Your task to perform on an android device: Empty the shopping cart on amazon. Add "lg ultragear" to the cart on amazon, then select checkout. Image 0: 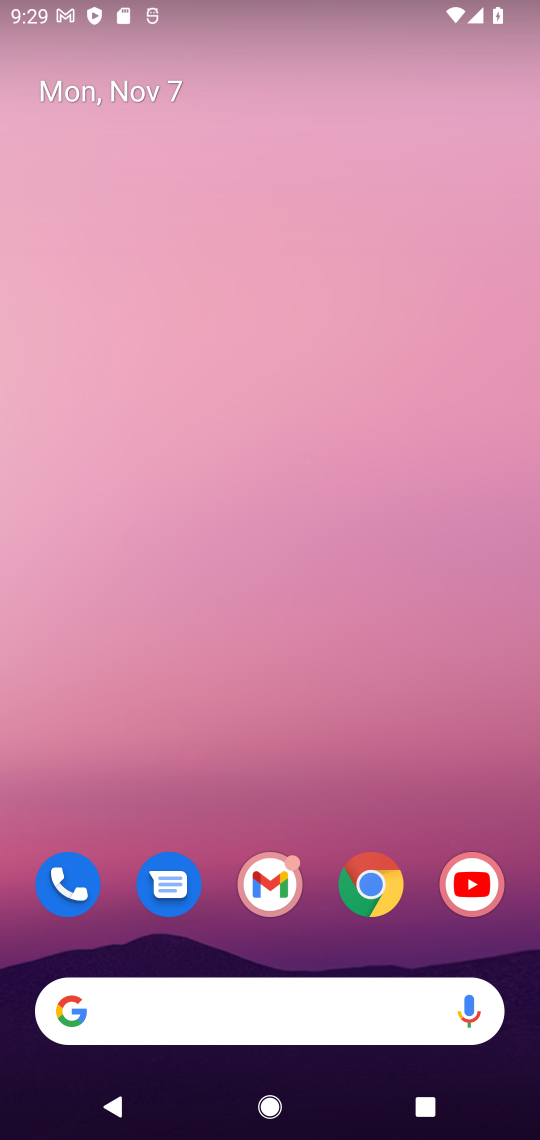
Step 0: click (361, 887)
Your task to perform on an android device: Empty the shopping cart on amazon. Add "lg ultragear" to the cart on amazon, then select checkout. Image 1: 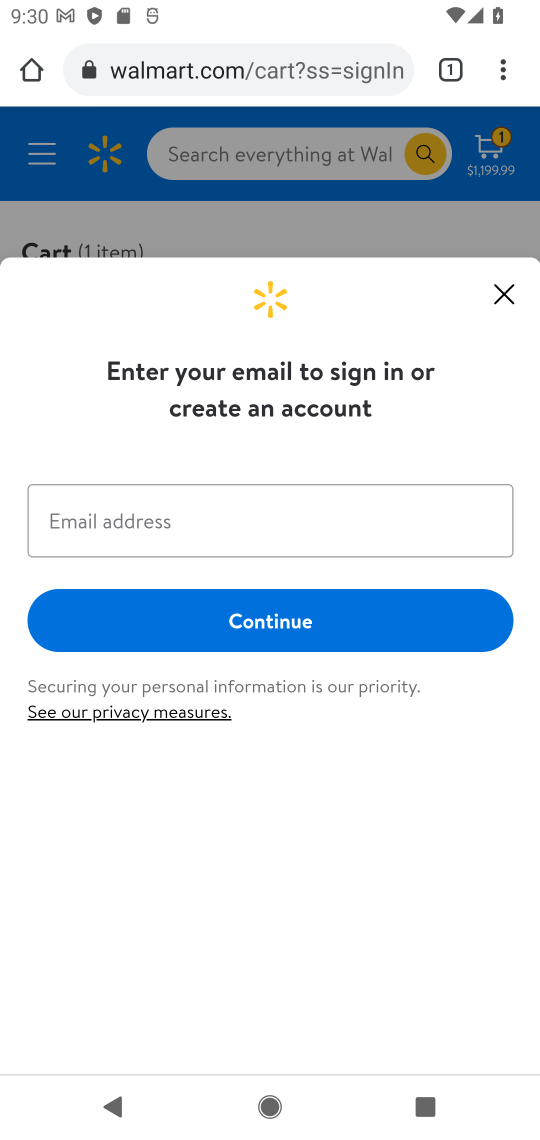
Step 1: click (503, 296)
Your task to perform on an android device: Empty the shopping cart on amazon. Add "lg ultragear" to the cart on amazon, then select checkout. Image 2: 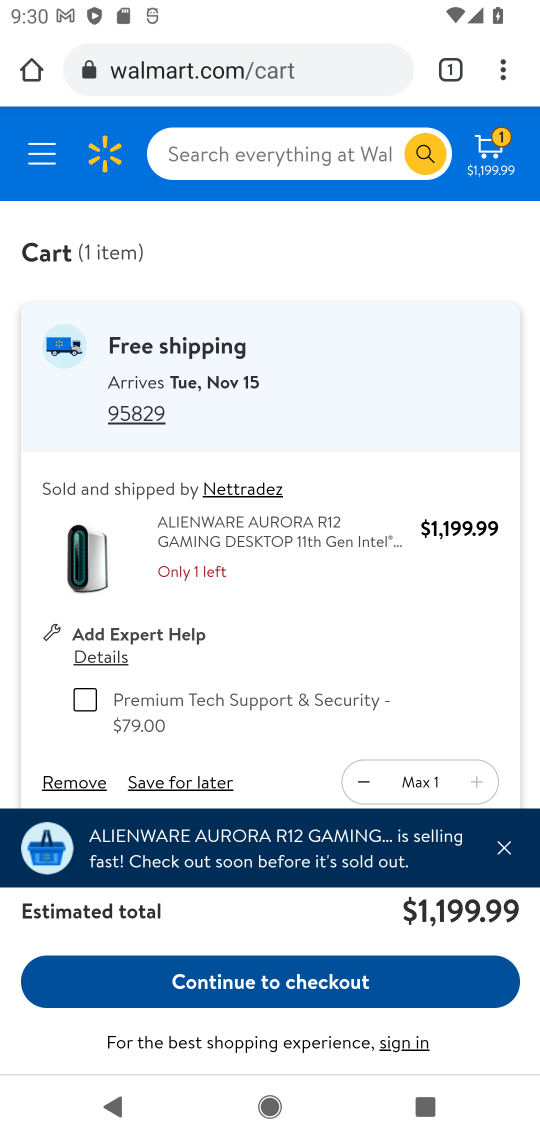
Step 2: click (251, 81)
Your task to perform on an android device: Empty the shopping cart on amazon. Add "lg ultragear" to the cart on amazon, then select checkout. Image 3: 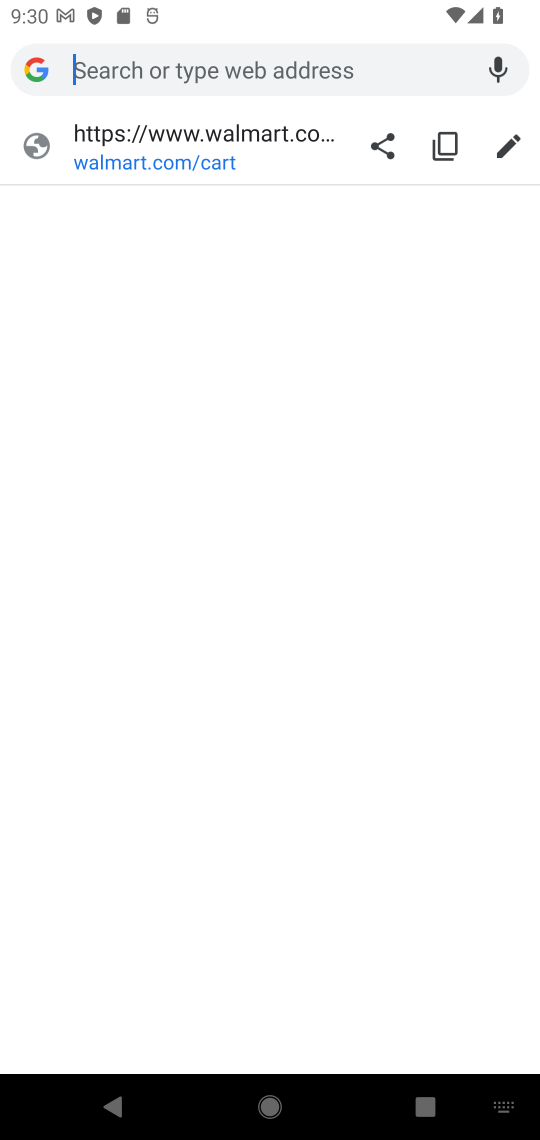
Step 3: type "amazon"
Your task to perform on an android device: Empty the shopping cart on amazon. Add "lg ultragear" to the cart on amazon, then select checkout. Image 4: 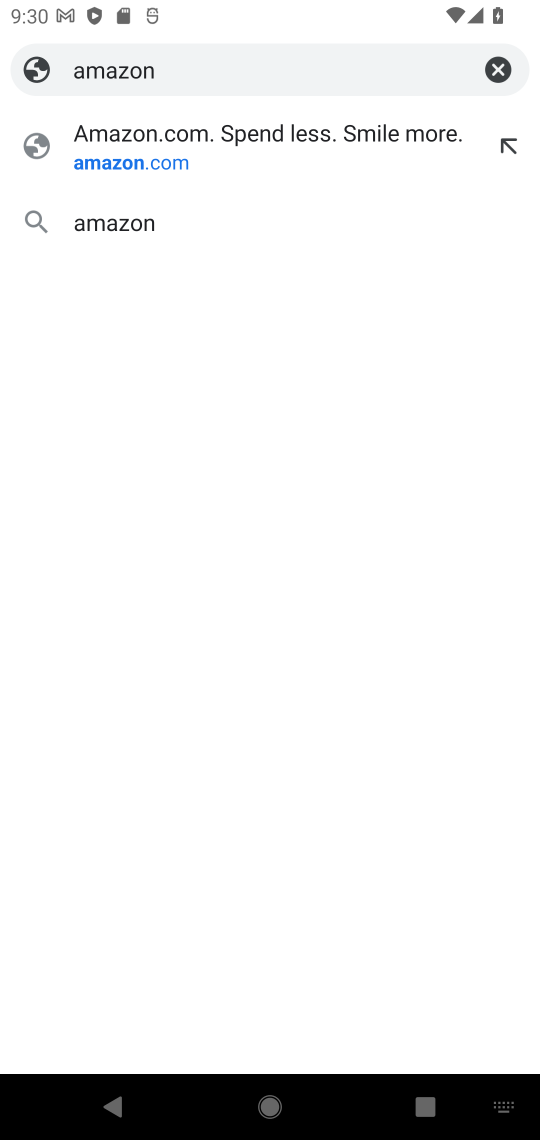
Step 4: click (122, 229)
Your task to perform on an android device: Empty the shopping cart on amazon. Add "lg ultragear" to the cart on amazon, then select checkout. Image 5: 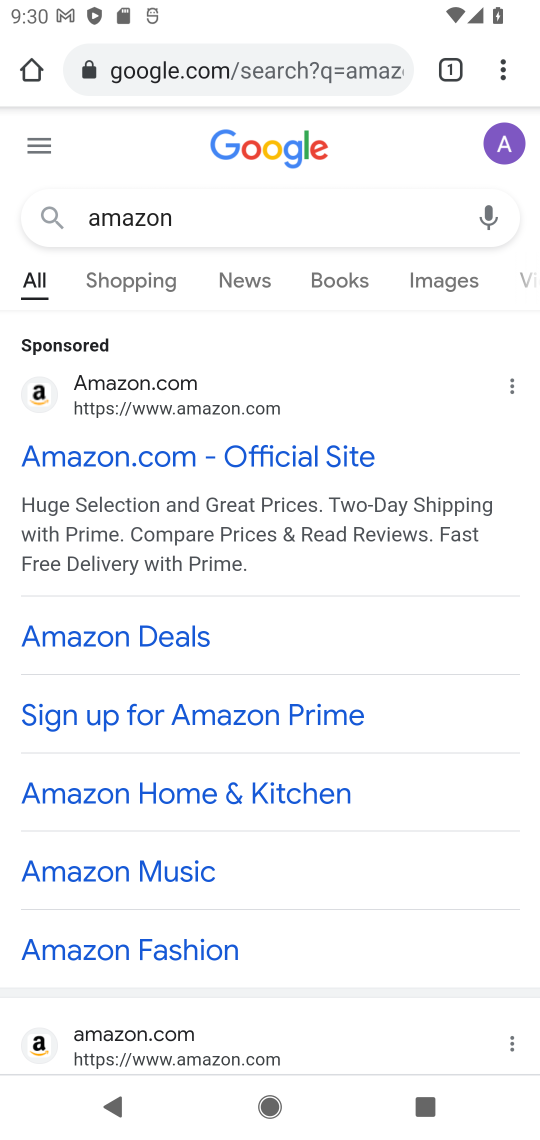
Step 5: click (145, 388)
Your task to perform on an android device: Empty the shopping cart on amazon. Add "lg ultragear" to the cart on amazon, then select checkout. Image 6: 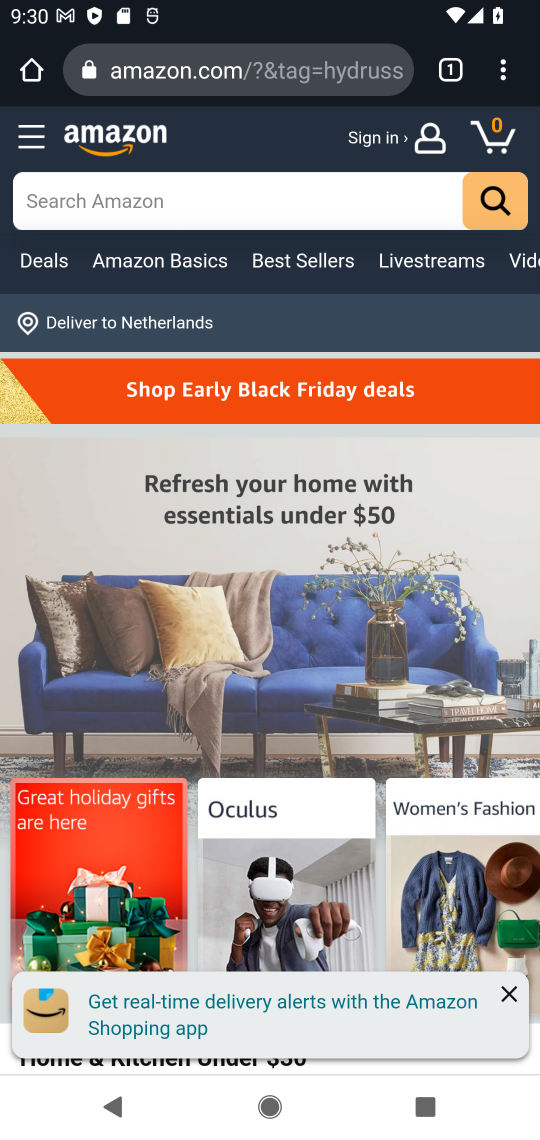
Step 6: click (233, 198)
Your task to perform on an android device: Empty the shopping cart on amazon. Add "lg ultragear" to the cart on amazon, then select checkout. Image 7: 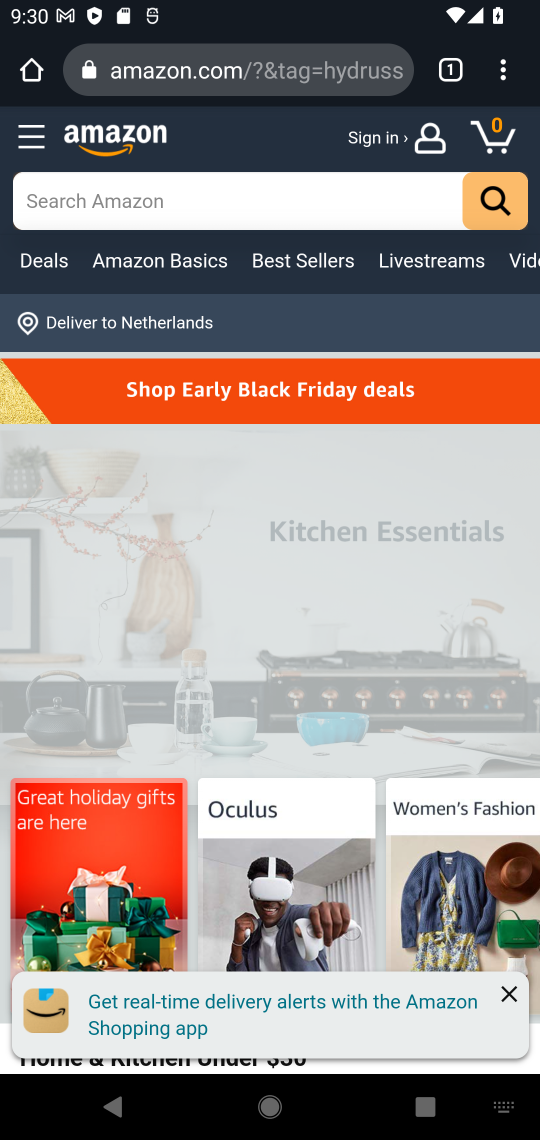
Step 7: type "lg ultragear"
Your task to perform on an android device: Empty the shopping cart on amazon. Add "lg ultragear" to the cart on amazon, then select checkout. Image 8: 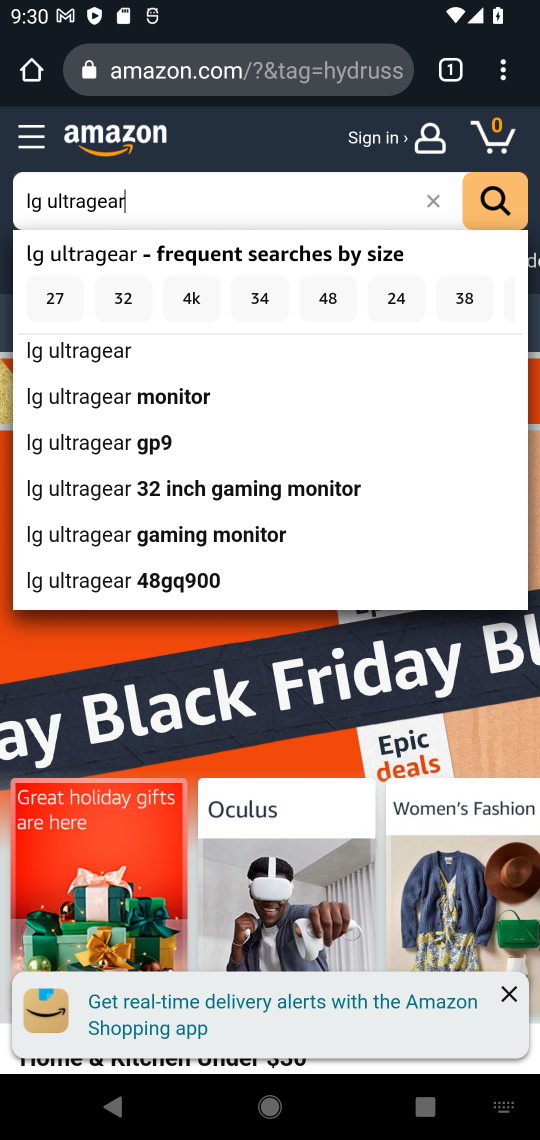
Step 8: click (98, 352)
Your task to perform on an android device: Empty the shopping cart on amazon. Add "lg ultragear" to the cart on amazon, then select checkout. Image 9: 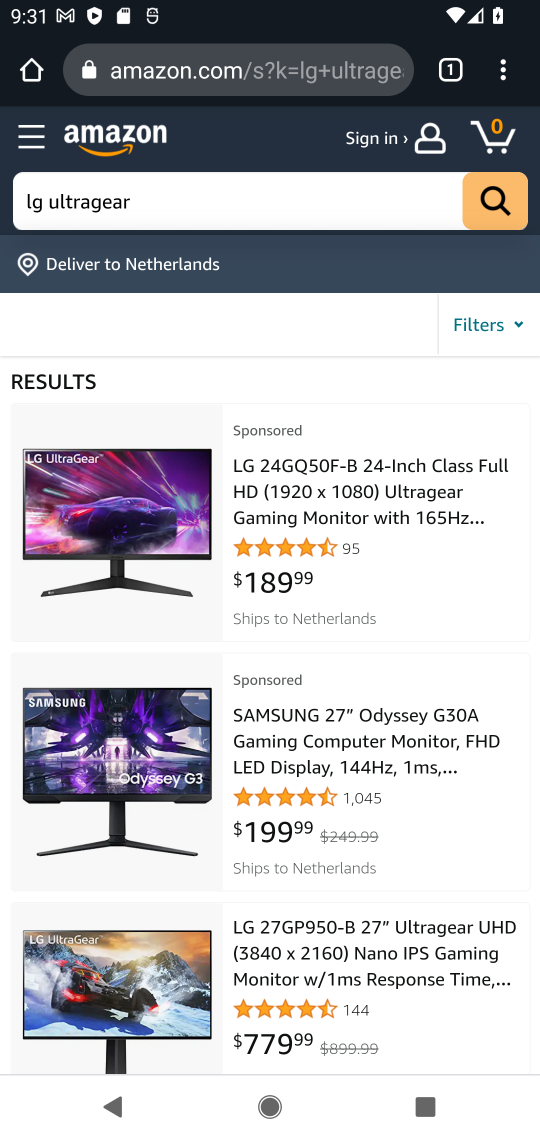
Step 9: click (120, 502)
Your task to perform on an android device: Empty the shopping cart on amazon. Add "lg ultragear" to the cart on amazon, then select checkout. Image 10: 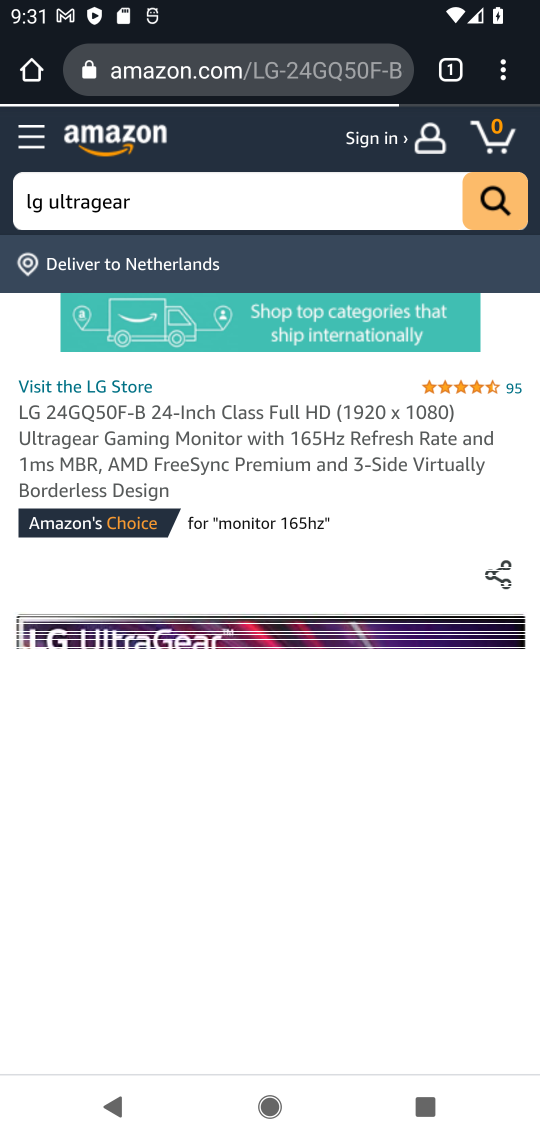
Step 10: drag from (408, 817) to (351, 309)
Your task to perform on an android device: Empty the shopping cart on amazon. Add "lg ultragear" to the cart on amazon, then select checkout. Image 11: 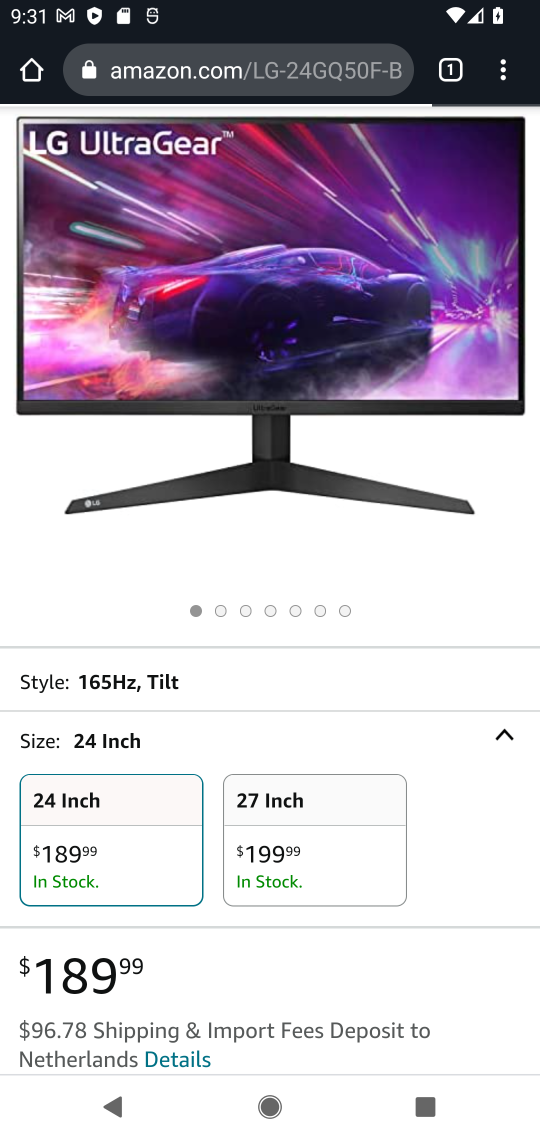
Step 11: drag from (449, 602) to (440, 350)
Your task to perform on an android device: Empty the shopping cart on amazon. Add "lg ultragear" to the cart on amazon, then select checkout. Image 12: 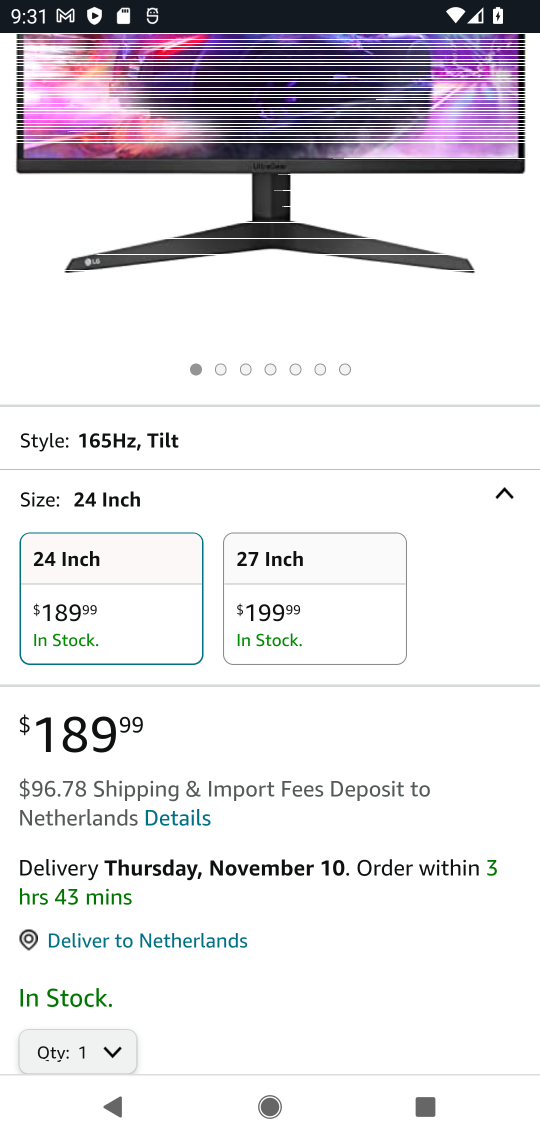
Step 12: drag from (475, 913) to (424, 397)
Your task to perform on an android device: Empty the shopping cart on amazon. Add "lg ultragear" to the cart on amazon, then select checkout. Image 13: 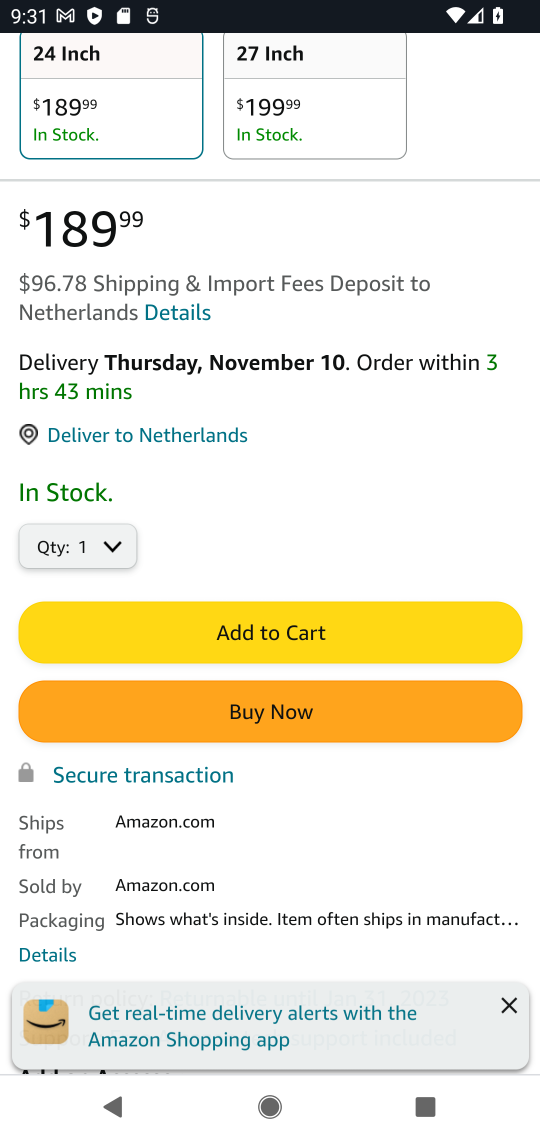
Step 13: click (300, 624)
Your task to perform on an android device: Empty the shopping cart on amazon. Add "lg ultragear" to the cart on amazon, then select checkout. Image 14: 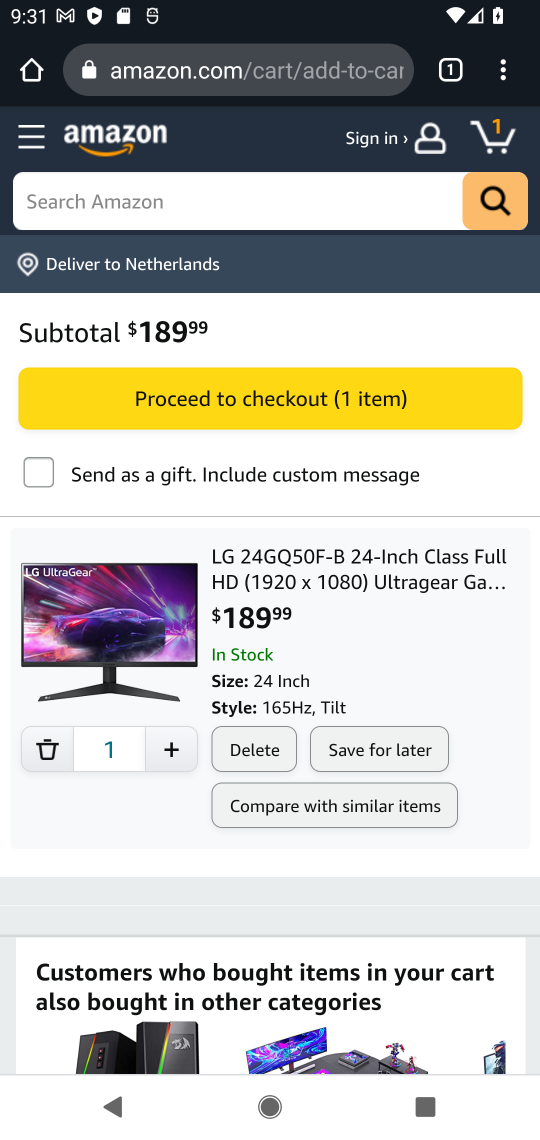
Step 14: click (238, 393)
Your task to perform on an android device: Empty the shopping cart on amazon. Add "lg ultragear" to the cart on amazon, then select checkout. Image 15: 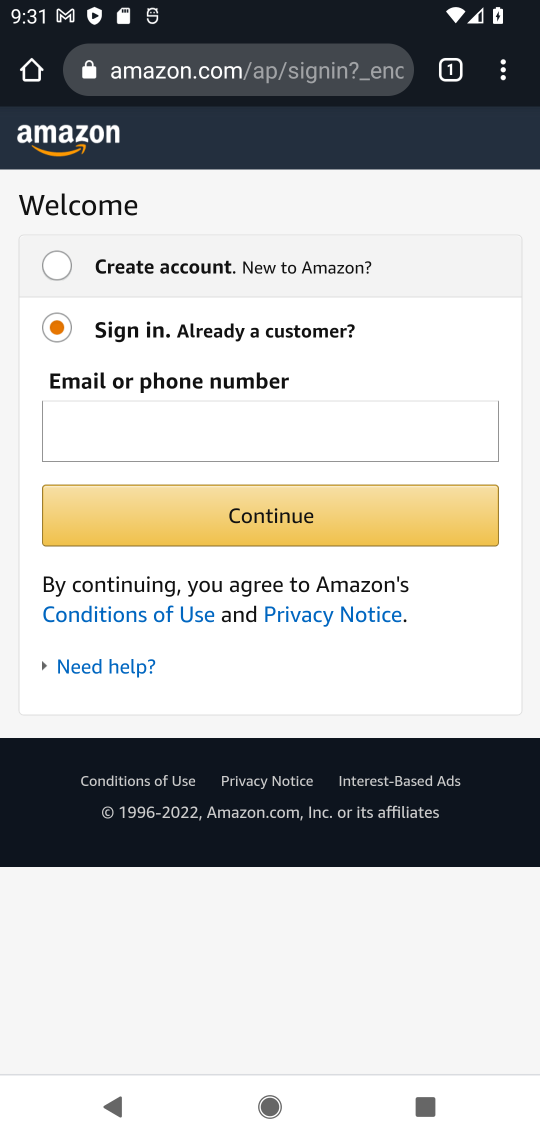
Step 15: task complete